Your task to perform on an android device: turn off notifications settings in the gmail app Image 0: 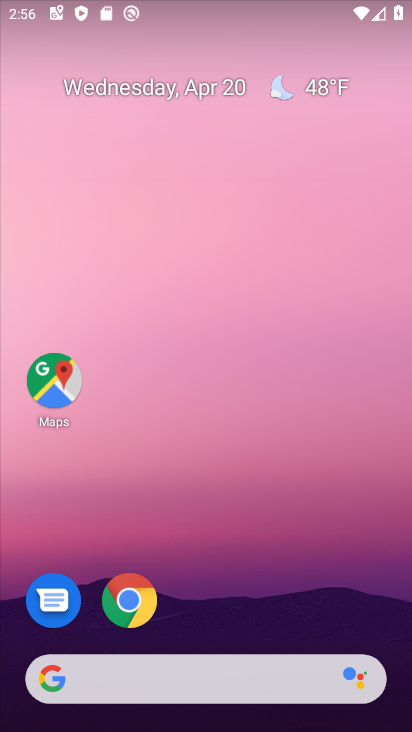
Step 0: drag from (315, 449) to (293, 15)
Your task to perform on an android device: turn off notifications settings in the gmail app Image 1: 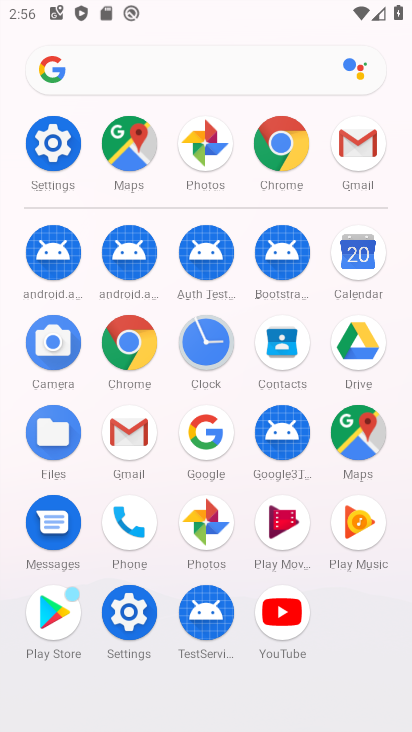
Step 1: click (353, 152)
Your task to perform on an android device: turn off notifications settings in the gmail app Image 2: 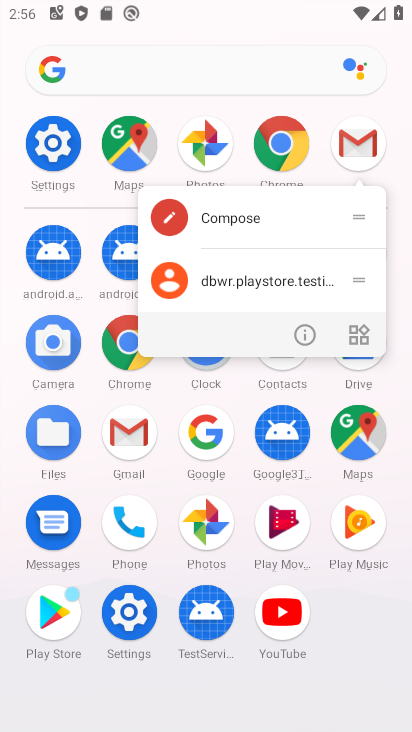
Step 2: click (360, 125)
Your task to perform on an android device: turn off notifications settings in the gmail app Image 3: 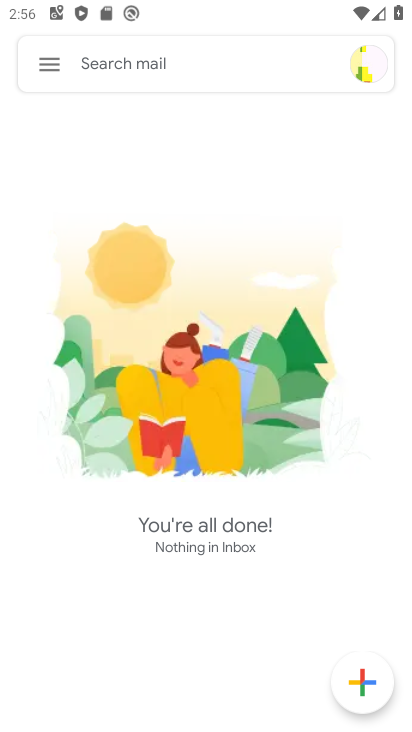
Step 3: click (63, 63)
Your task to perform on an android device: turn off notifications settings in the gmail app Image 4: 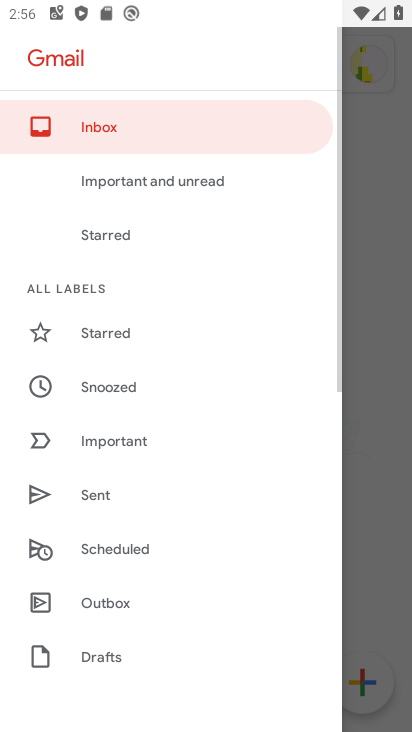
Step 4: drag from (175, 618) to (201, 221)
Your task to perform on an android device: turn off notifications settings in the gmail app Image 5: 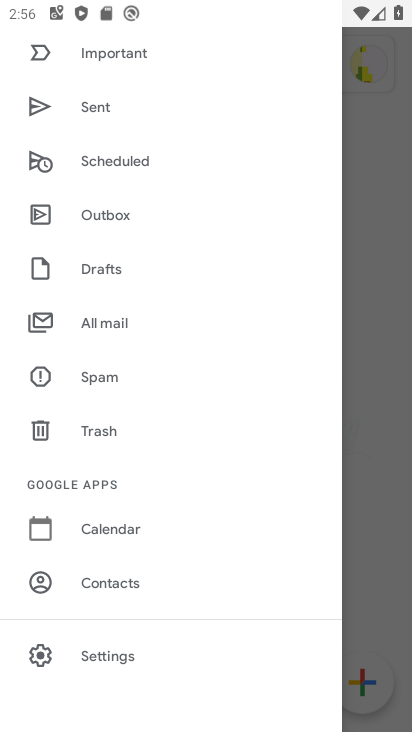
Step 5: click (100, 664)
Your task to perform on an android device: turn off notifications settings in the gmail app Image 6: 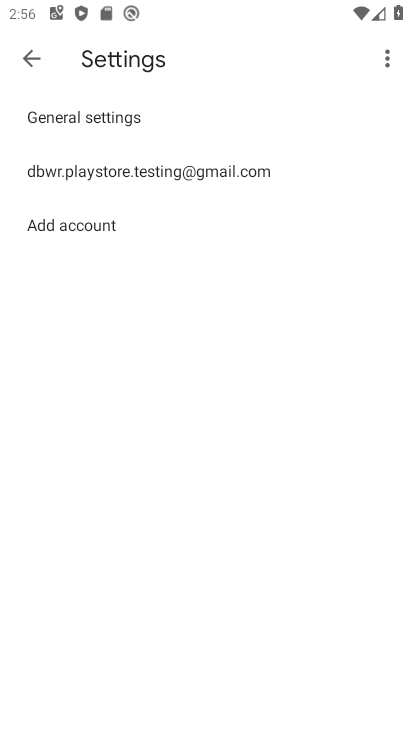
Step 6: click (62, 175)
Your task to perform on an android device: turn off notifications settings in the gmail app Image 7: 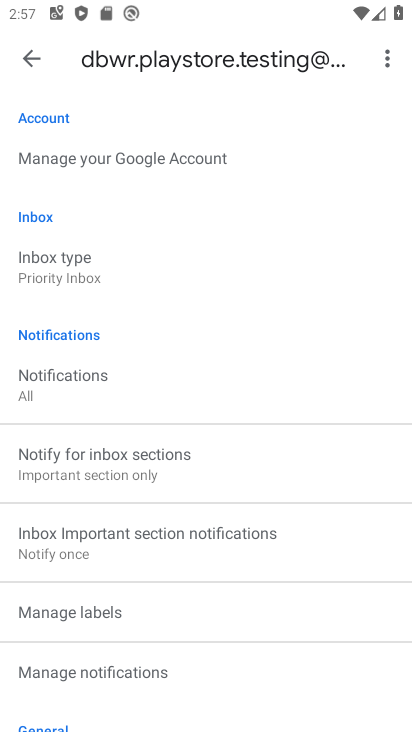
Step 7: click (51, 383)
Your task to perform on an android device: turn off notifications settings in the gmail app Image 8: 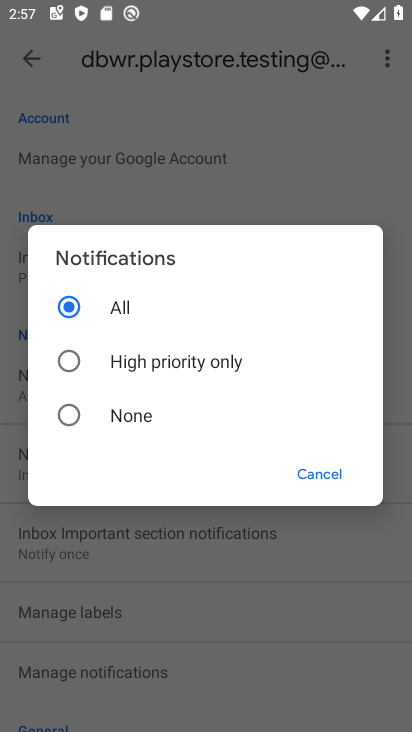
Step 8: click (70, 397)
Your task to perform on an android device: turn off notifications settings in the gmail app Image 9: 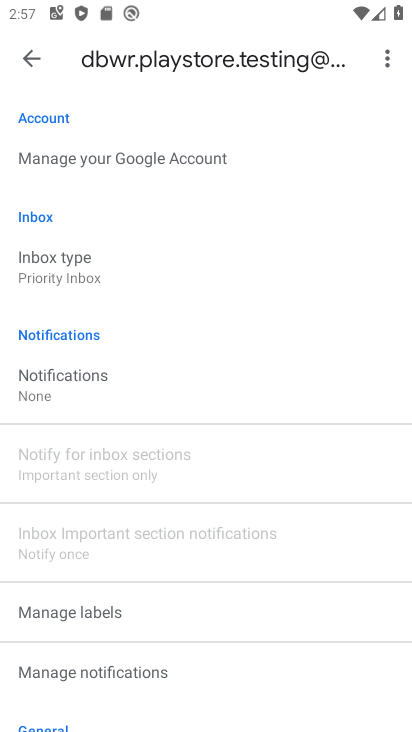
Step 9: task complete